Your task to perform on an android device: Open the stopwatch Image 0: 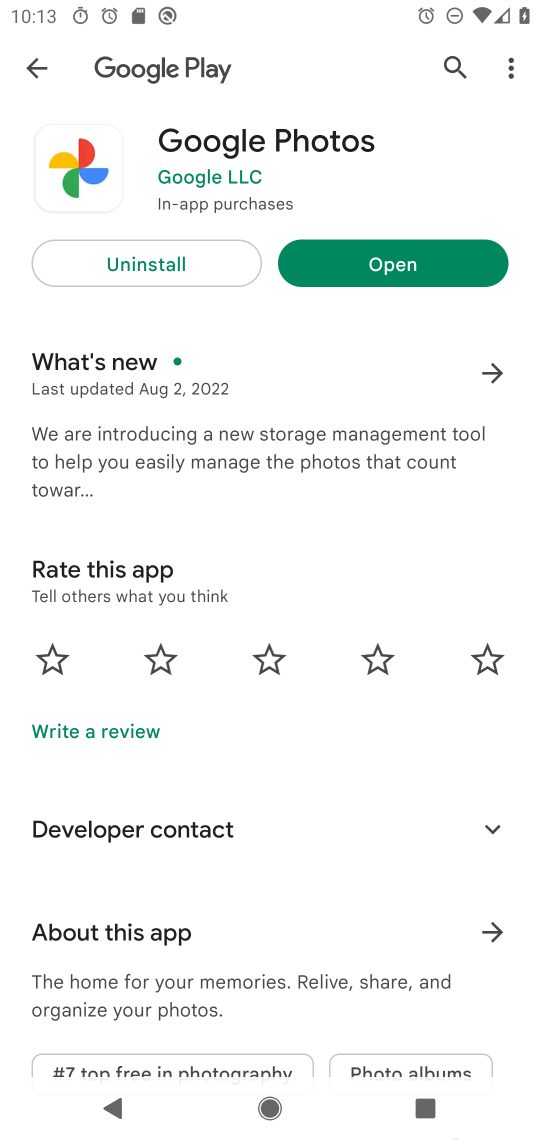
Step 0: press home button
Your task to perform on an android device: Open the stopwatch Image 1: 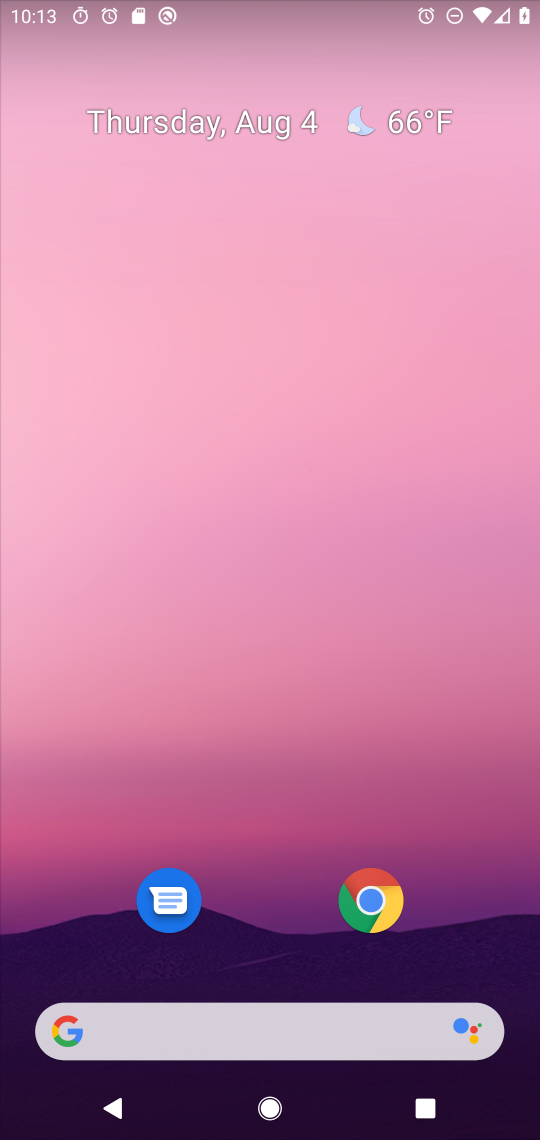
Step 1: drag from (265, 1043) to (249, 254)
Your task to perform on an android device: Open the stopwatch Image 2: 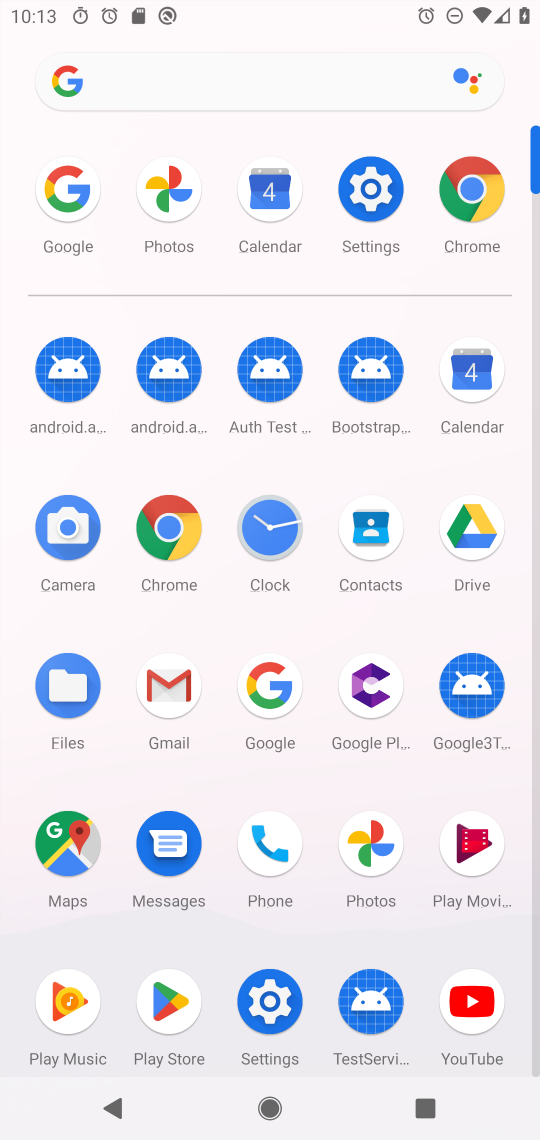
Step 2: click (269, 529)
Your task to perform on an android device: Open the stopwatch Image 3: 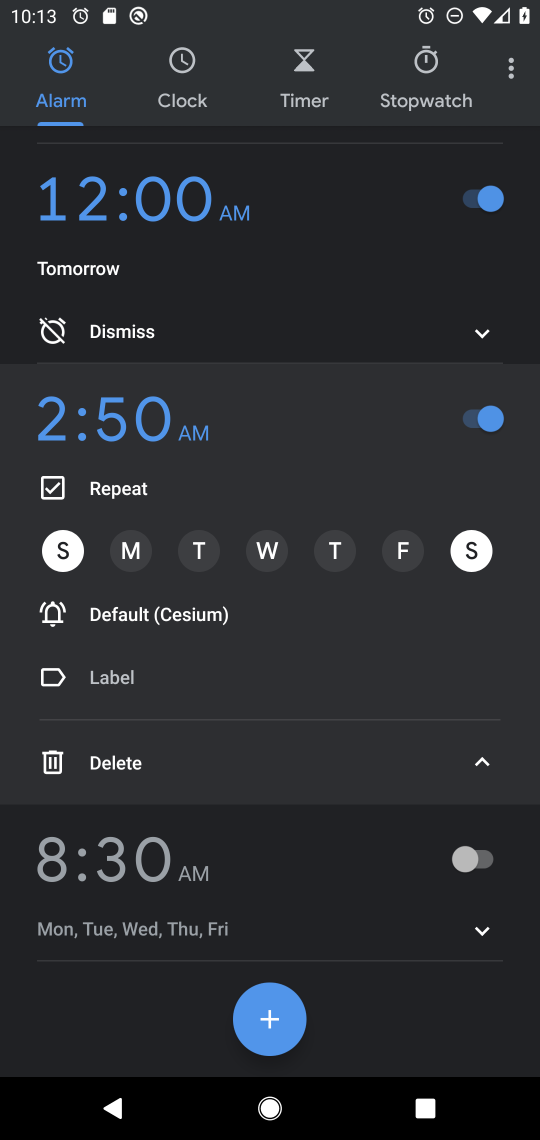
Step 3: click (428, 62)
Your task to perform on an android device: Open the stopwatch Image 4: 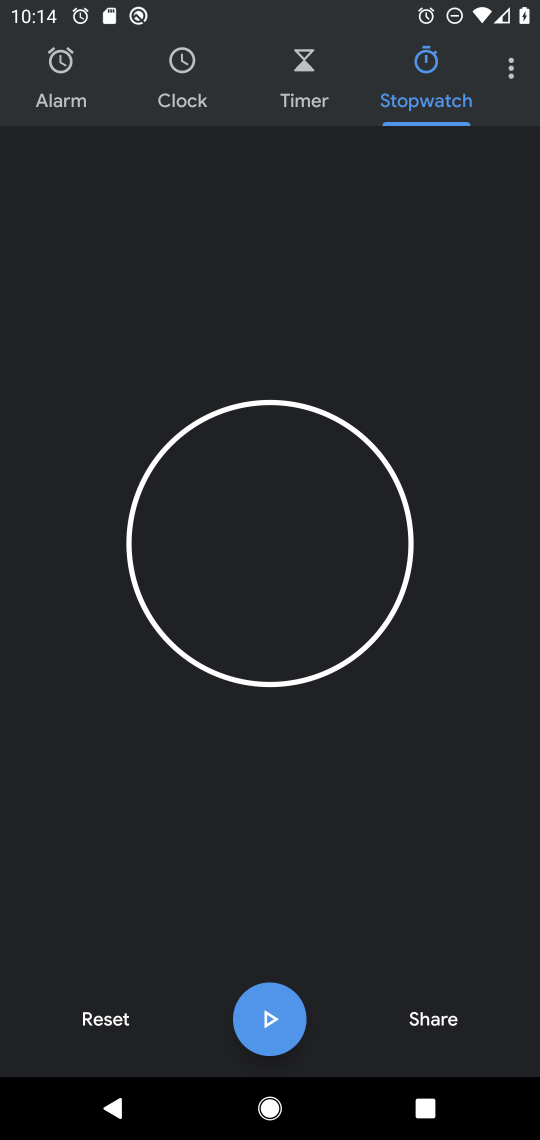
Step 4: task complete